Your task to perform on an android device: What's the latest video from GameSpot eSports? Image 0: 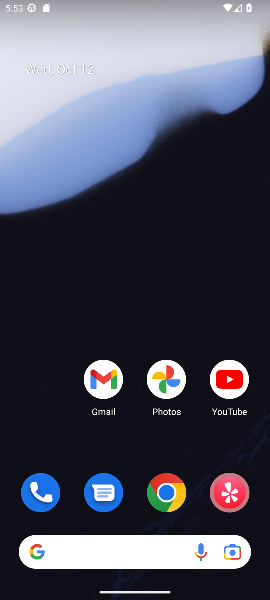
Step 0: click (170, 495)
Your task to perform on an android device: What's the latest video from GameSpot eSports? Image 1: 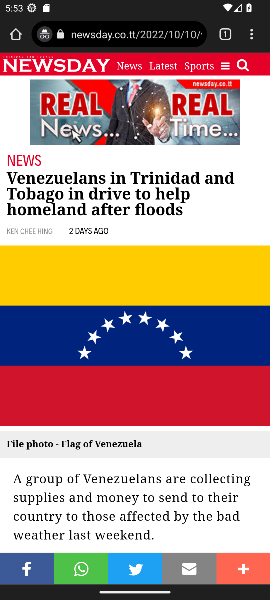
Step 1: click (123, 41)
Your task to perform on an android device: What's the latest video from GameSpot eSports? Image 2: 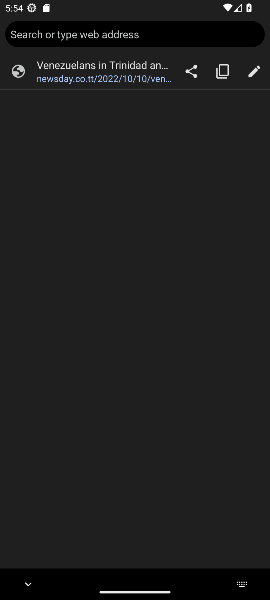
Step 2: type "the latest video from GameSpot eSports?"
Your task to perform on an android device: What's the latest video from GameSpot eSports? Image 3: 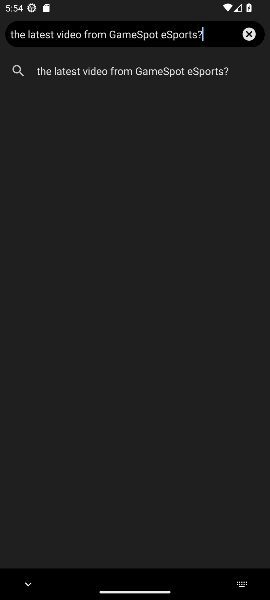
Step 3: click (75, 79)
Your task to perform on an android device: What's the latest video from GameSpot eSports? Image 4: 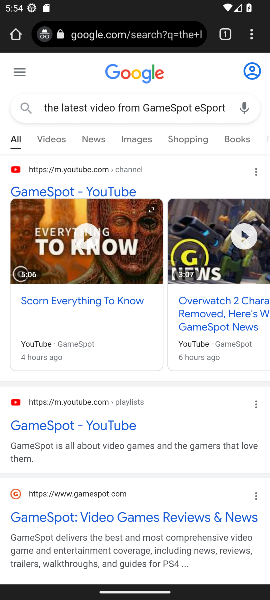
Step 4: click (45, 136)
Your task to perform on an android device: What's the latest video from GameSpot eSports? Image 5: 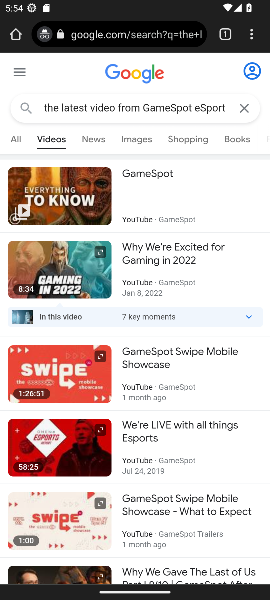
Step 5: click (59, 207)
Your task to perform on an android device: What's the latest video from GameSpot eSports? Image 6: 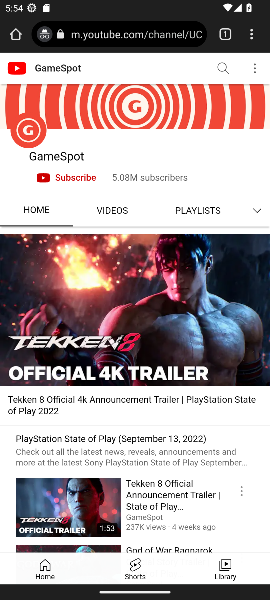
Step 6: click (92, 354)
Your task to perform on an android device: What's the latest video from GameSpot eSports? Image 7: 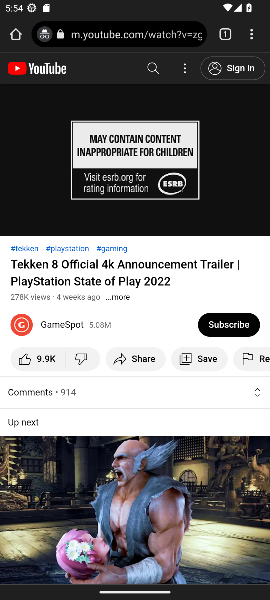
Step 7: click (126, 165)
Your task to perform on an android device: What's the latest video from GameSpot eSports? Image 8: 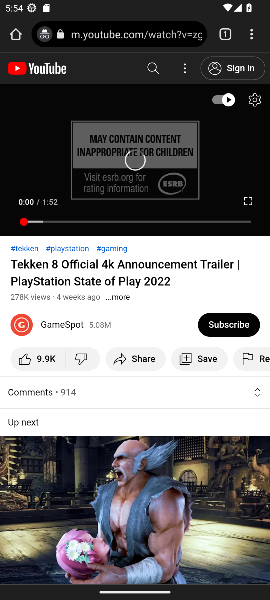
Step 8: click (126, 165)
Your task to perform on an android device: What's the latest video from GameSpot eSports? Image 9: 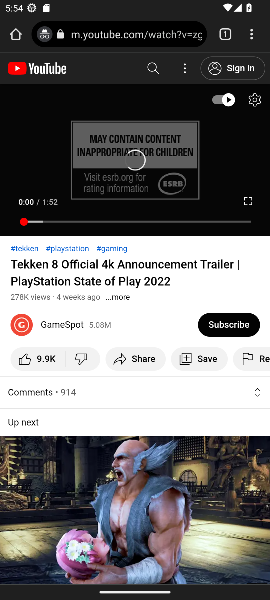
Step 9: click (142, 167)
Your task to perform on an android device: What's the latest video from GameSpot eSports? Image 10: 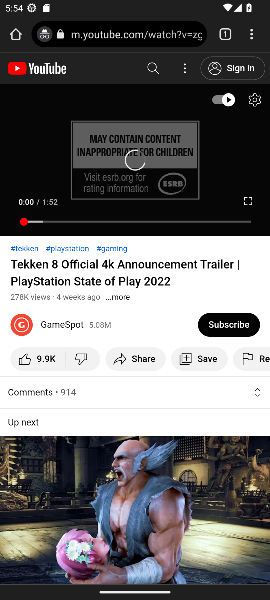
Step 10: click (138, 164)
Your task to perform on an android device: What's the latest video from GameSpot eSports? Image 11: 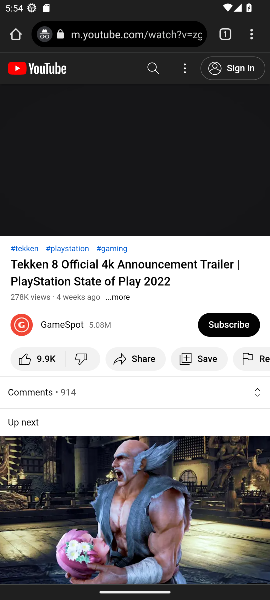
Step 11: click (134, 166)
Your task to perform on an android device: What's the latest video from GameSpot eSports? Image 12: 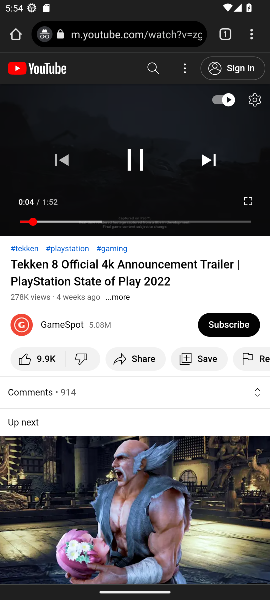
Step 12: click (134, 166)
Your task to perform on an android device: What's the latest video from GameSpot eSports? Image 13: 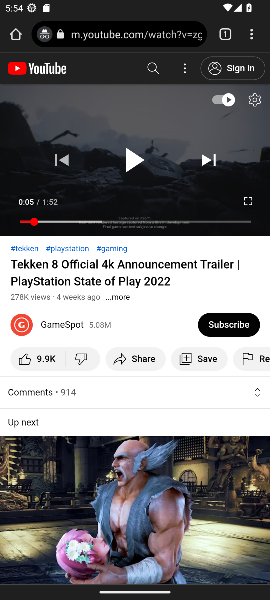
Step 13: task complete